Your task to perform on an android device: check battery use Image 0: 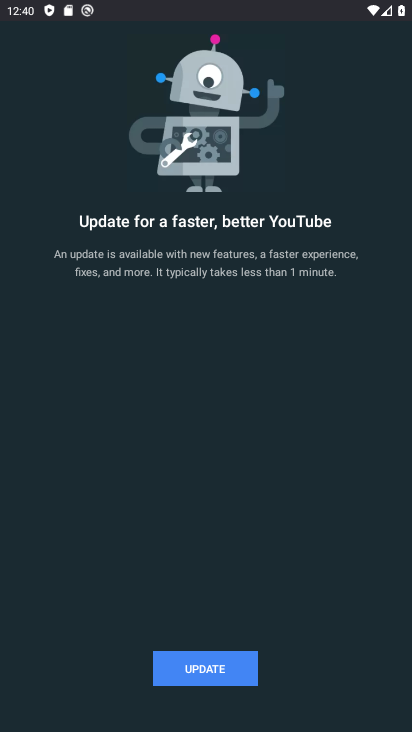
Step 0: press home button
Your task to perform on an android device: check battery use Image 1: 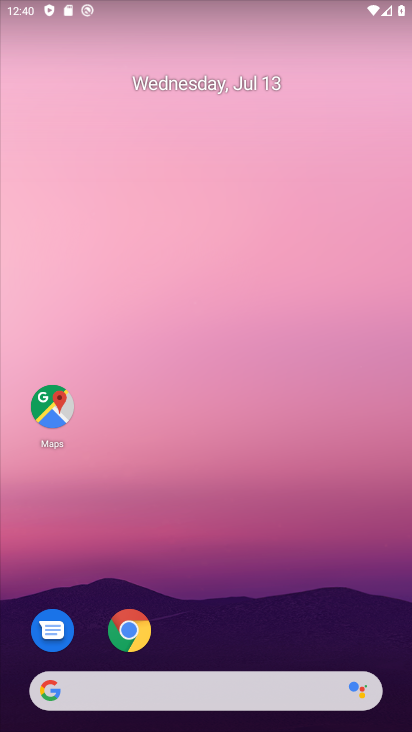
Step 1: drag from (42, 715) to (219, 156)
Your task to perform on an android device: check battery use Image 2: 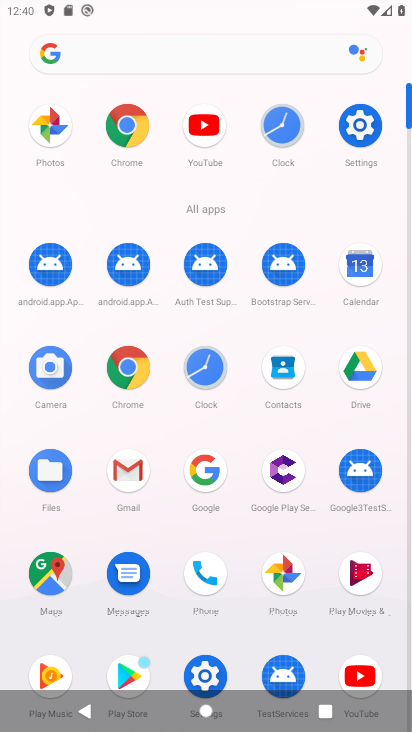
Step 2: click (194, 670)
Your task to perform on an android device: check battery use Image 3: 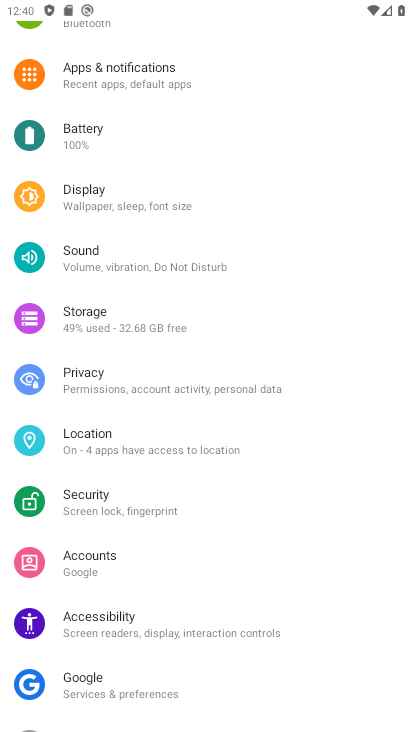
Step 3: click (104, 127)
Your task to perform on an android device: check battery use Image 4: 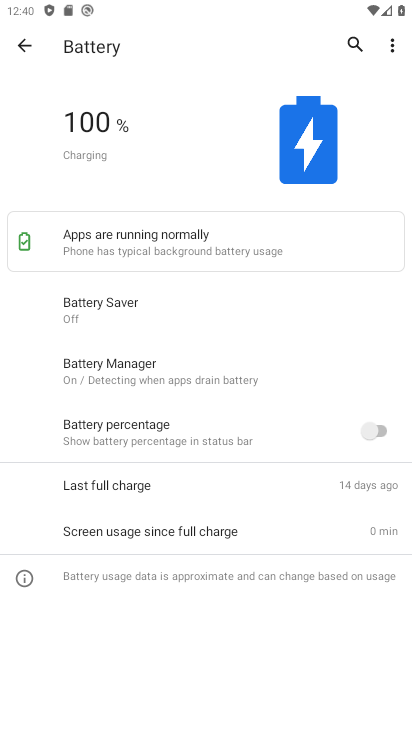
Step 4: task complete